Your task to perform on an android device: Open accessibility settings Image 0: 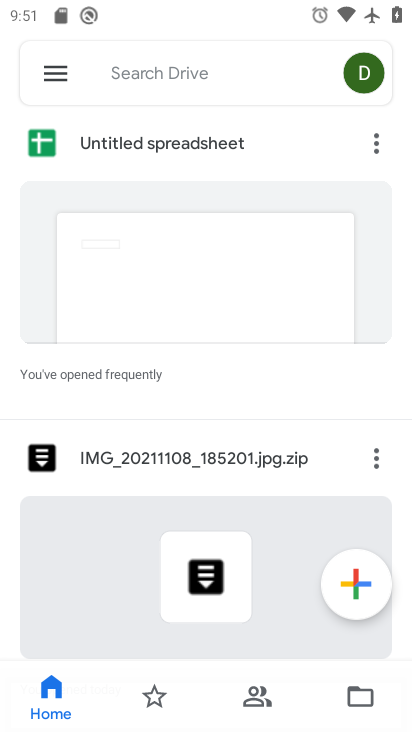
Step 0: press home button
Your task to perform on an android device: Open accessibility settings Image 1: 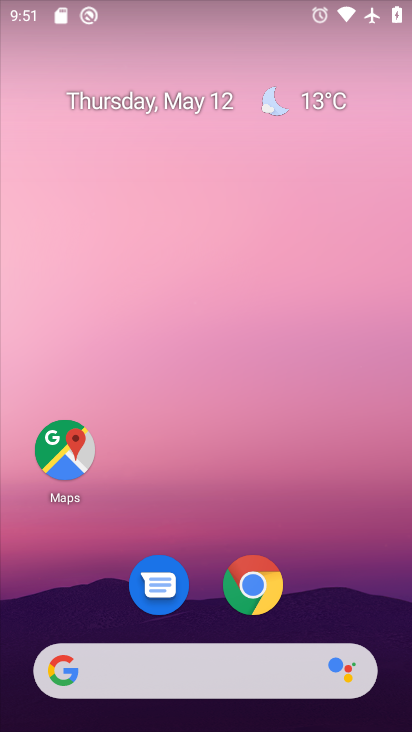
Step 1: drag from (180, 477) to (184, 15)
Your task to perform on an android device: Open accessibility settings Image 2: 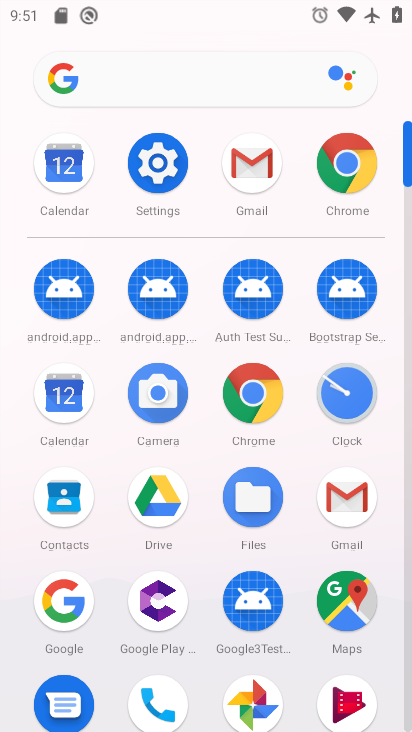
Step 2: click (156, 174)
Your task to perform on an android device: Open accessibility settings Image 3: 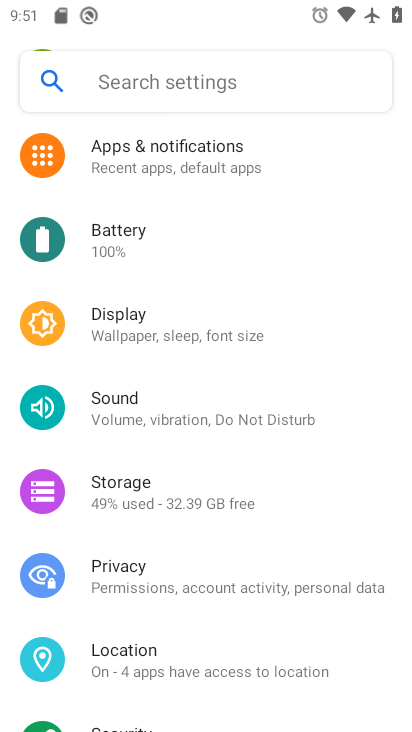
Step 3: drag from (241, 510) to (220, 100)
Your task to perform on an android device: Open accessibility settings Image 4: 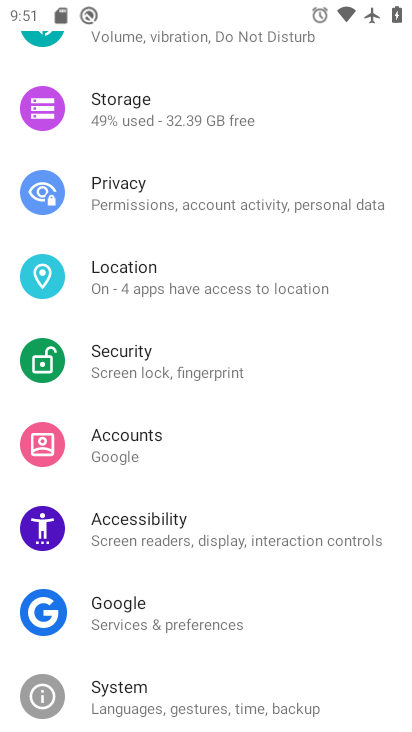
Step 4: click (176, 519)
Your task to perform on an android device: Open accessibility settings Image 5: 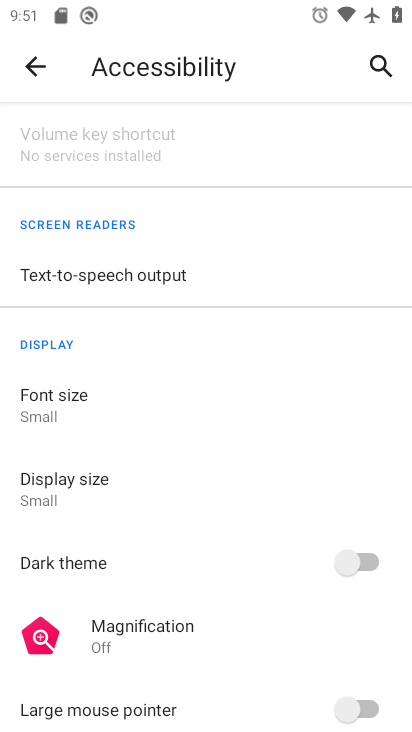
Step 5: task complete